Your task to perform on an android device: turn pop-ups off in chrome Image 0: 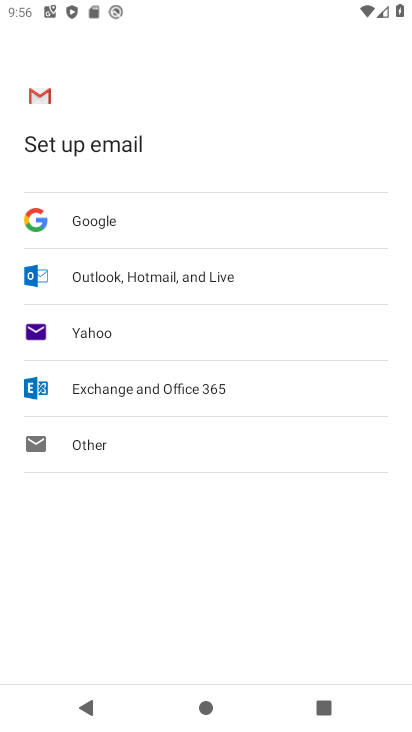
Step 0: press home button
Your task to perform on an android device: turn pop-ups off in chrome Image 1: 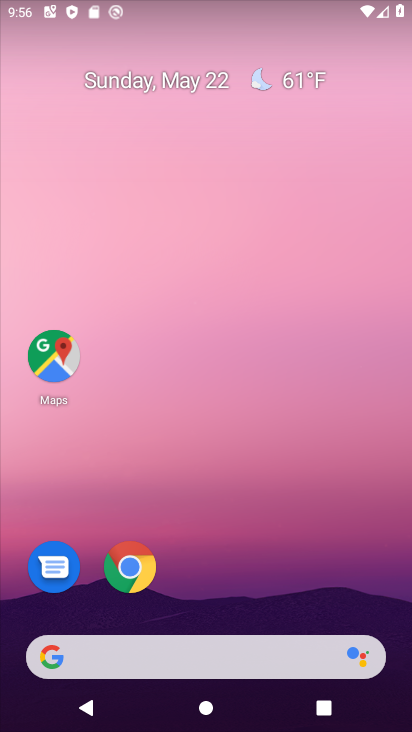
Step 1: click (135, 566)
Your task to perform on an android device: turn pop-ups off in chrome Image 2: 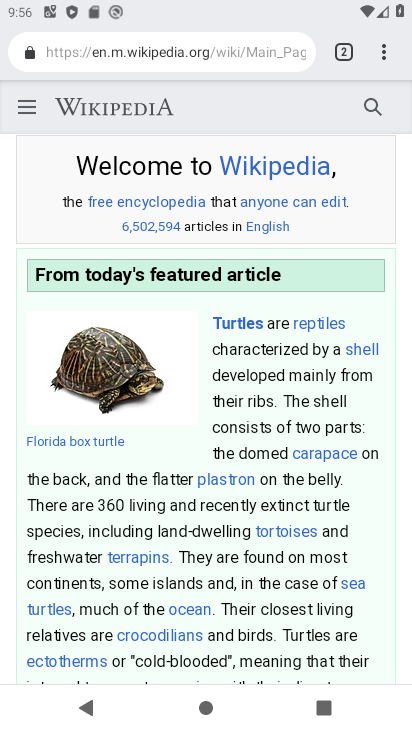
Step 2: click (379, 57)
Your task to perform on an android device: turn pop-ups off in chrome Image 3: 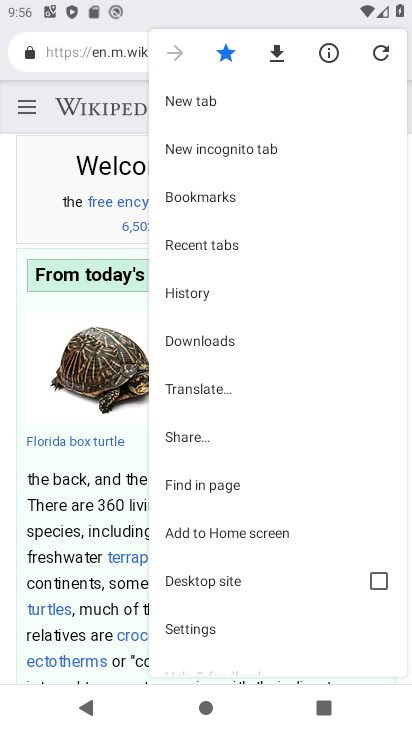
Step 3: click (200, 637)
Your task to perform on an android device: turn pop-ups off in chrome Image 4: 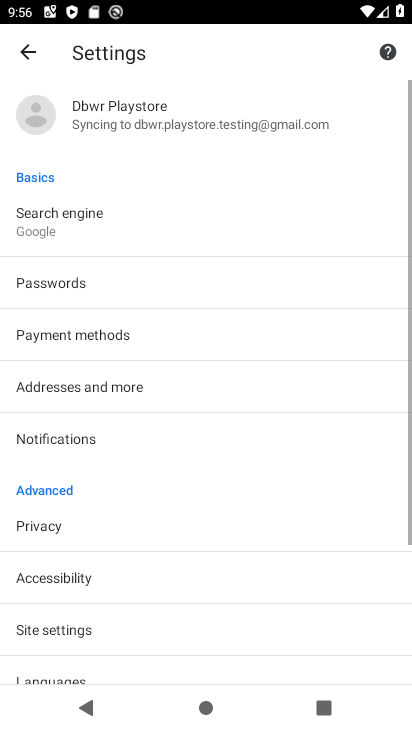
Step 4: drag from (200, 637) to (190, 136)
Your task to perform on an android device: turn pop-ups off in chrome Image 5: 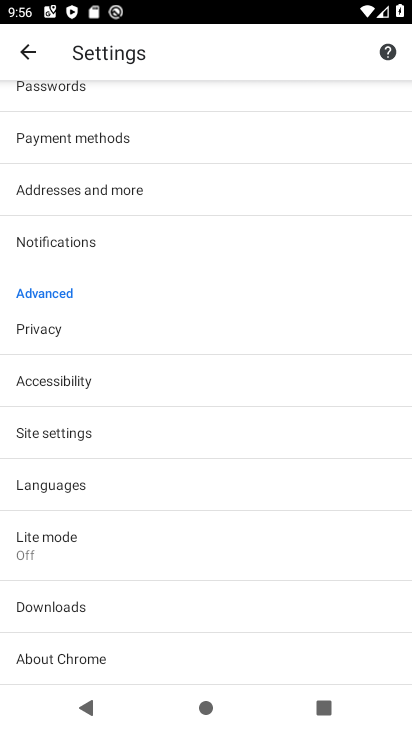
Step 5: click (40, 424)
Your task to perform on an android device: turn pop-ups off in chrome Image 6: 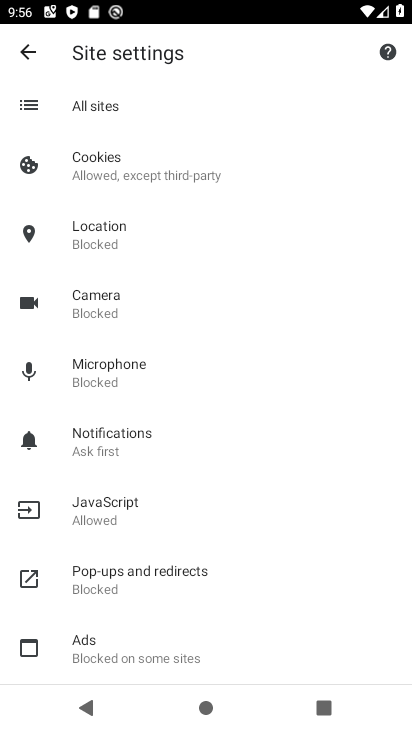
Step 6: click (121, 566)
Your task to perform on an android device: turn pop-ups off in chrome Image 7: 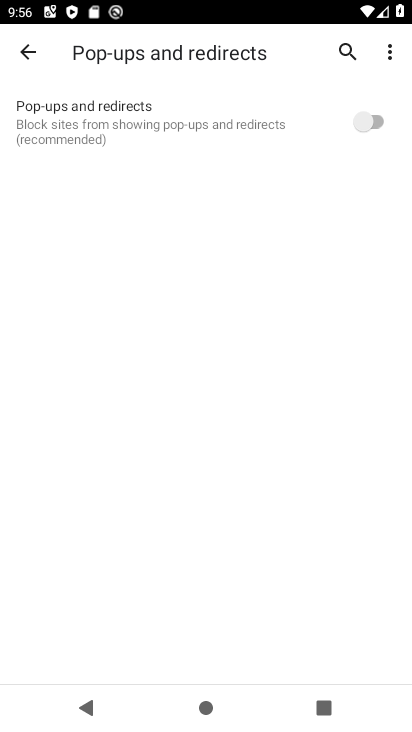
Step 7: task complete